Your task to perform on an android device: all mails in gmail Image 0: 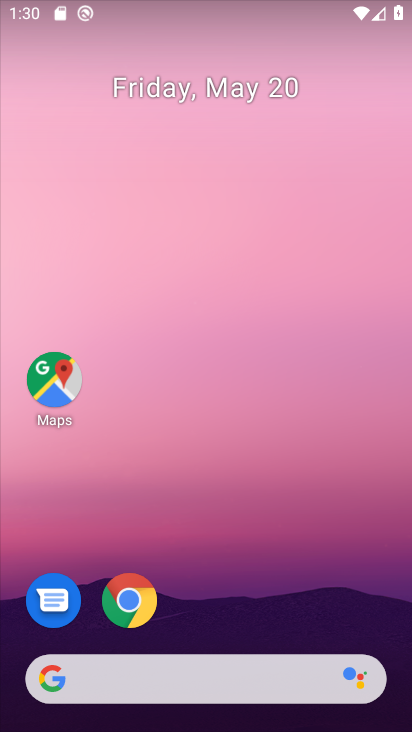
Step 0: drag from (282, 485) to (172, 74)
Your task to perform on an android device: all mails in gmail Image 1: 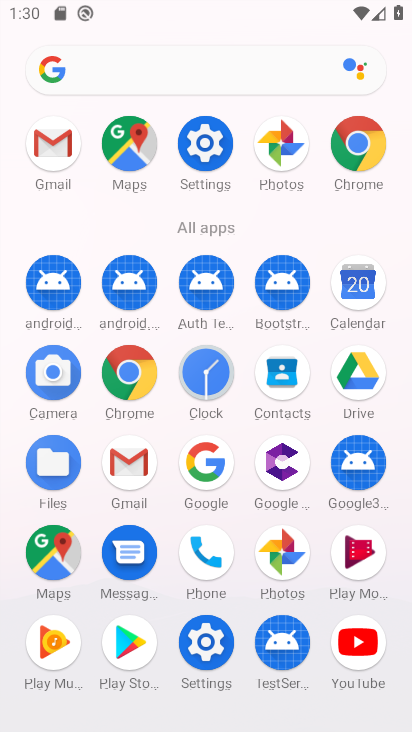
Step 1: click (56, 149)
Your task to perform on an android device: all mails in gmail Image 2: 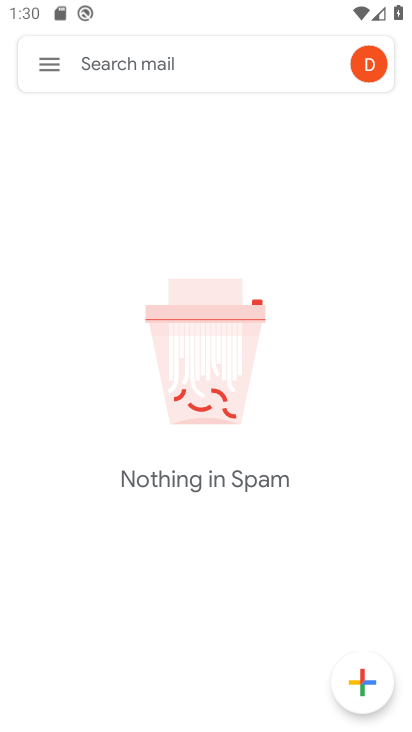
Step 2: click (54, 46)
Your task to perform on an android device: all mails in gmail Image 3: 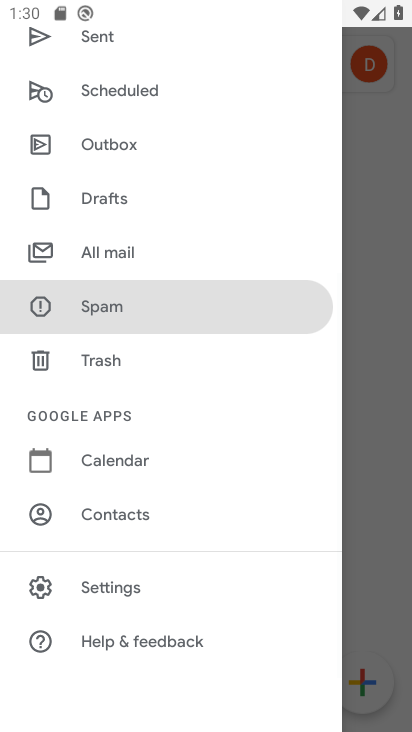
Step 3: click (164, 254)
Your task to perform on an android device: all mails in gmail Image 4: 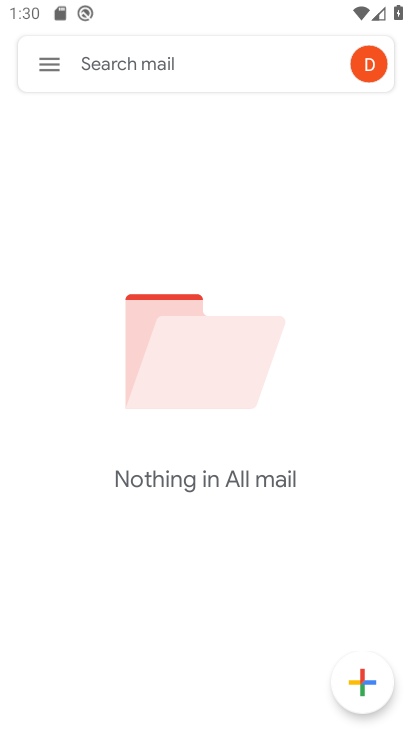
Step 4: task complete